Your task to perform on an android device: Search for dell alienware on target, select the first entry, add it to the cart, then select checkout. Image 0: 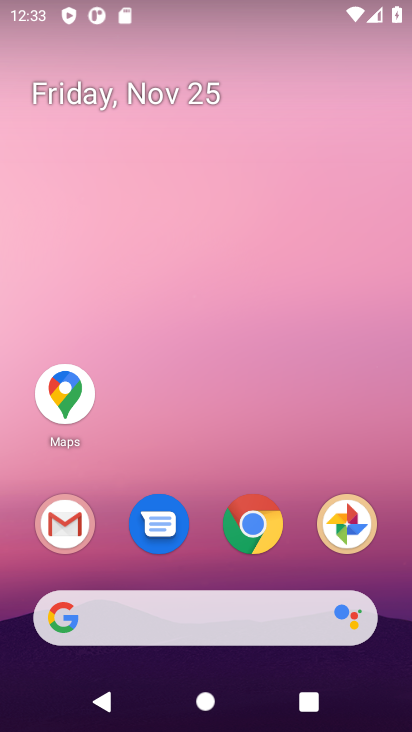
Step 0: click (257, 530)
Your task to perform on an android device: Search for dell alienware on target, select the first entry, add it to the cart, then select checkout. Image 1: 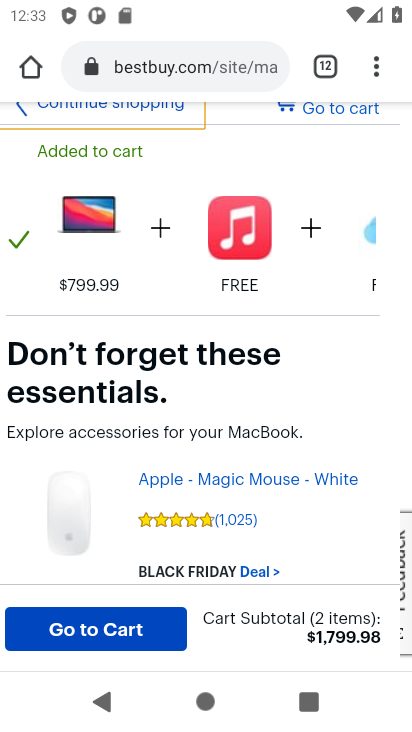
Step 1: click (161, 69)
Your task to perform on an android device: Search for dell alienware on target, select the first entry, add it to the cart, then select checkout. Image 2: 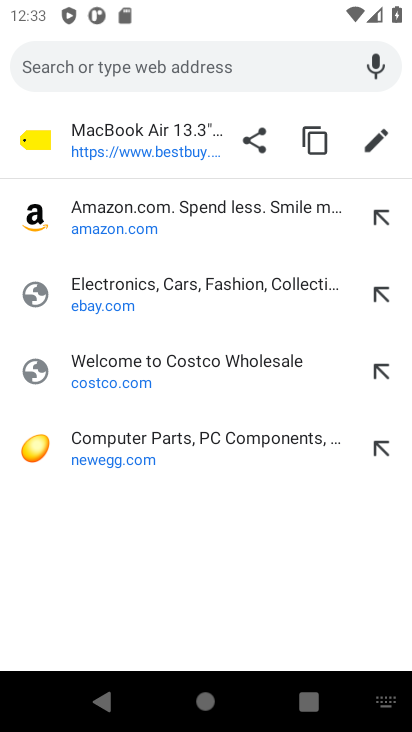
Step 2: type "target.com"
Your task to perform on an android device: Search for dell alienware on target, select the first entry, add it to the cart, then select checkout. Image 3: 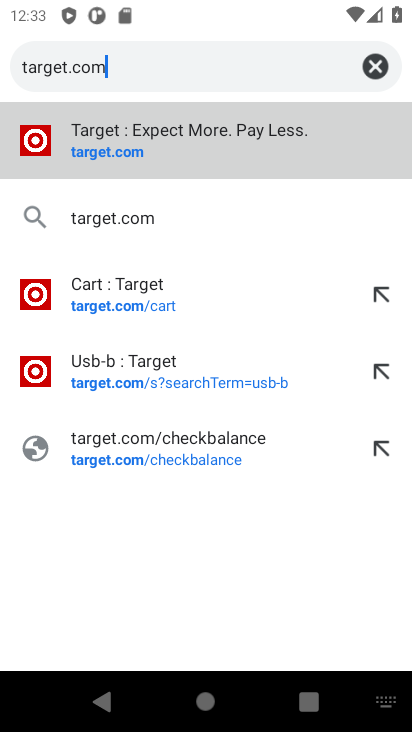
Step 3: click (95, 154)
Your task to perform on an android device: Search for dell alienware on target, select the first entry, add it to the cart, then select checkout. Image 4: 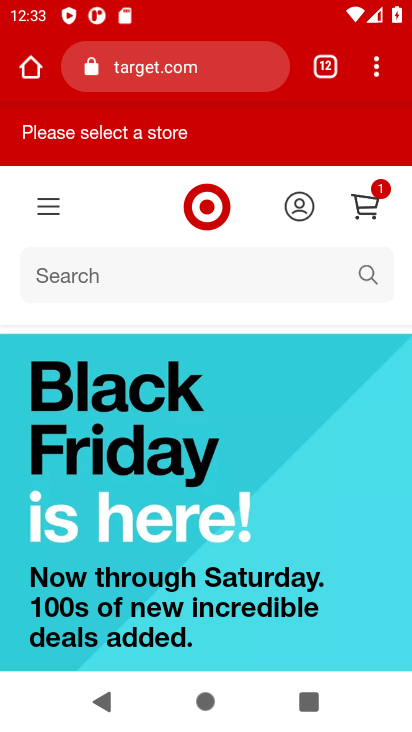
Step 4: click (367, 278)
Your task to perform on an android device: Search for dell alienware on target, select the first entry, add it to the cart, then select checkout. Image 5: 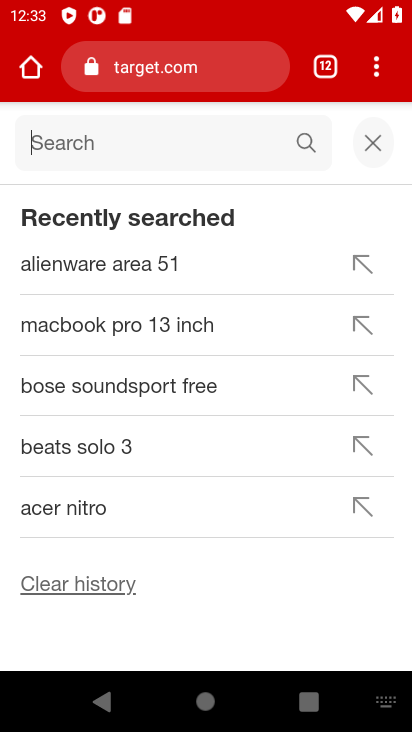
Step 5: type "dell alienware"
Your task to perform on an android device: Search for dell alienware on target, select the first entry, add it to the cart, then select checkout. Image 6: 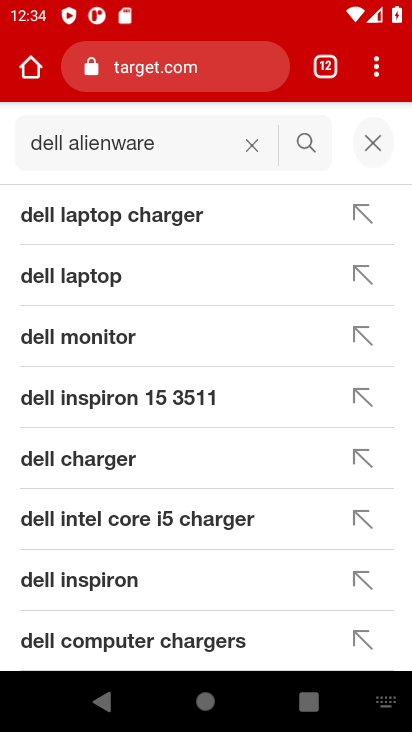
Step 6: click (304, 144)
Your task to perform on an android device: Search for dell alienware on target, select the first entry, add it to the cart, then select checkout. Image 7: 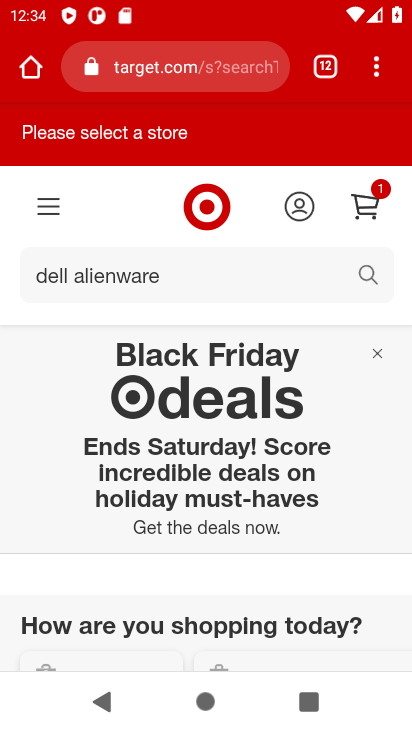
Step 7: task complete